Your task to perform on an android device: open a new tab in the chrome app Image 0: 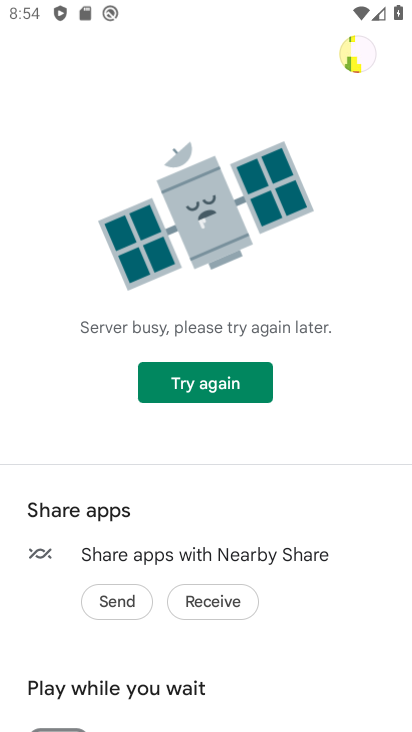
Step 0: press home button
Your task to perform on an android device: open a new tab in the chrome app Image 1: 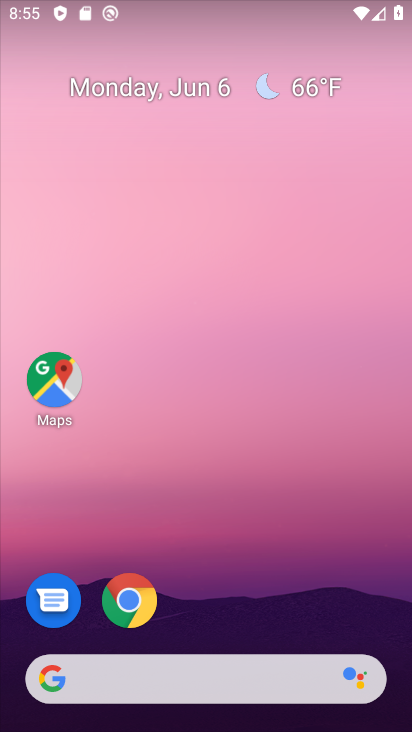
Step 1: click (127, 595)
Your task to perform on an android device: open a new tab in the chrome app Image 2: 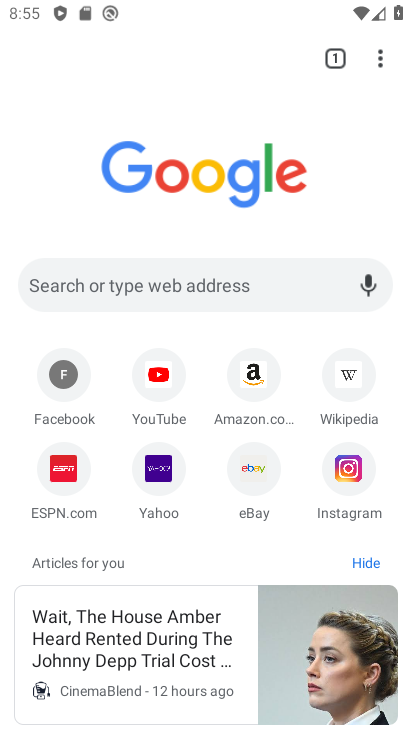
Step 2: click (332, 59)
Your task to perform on an android device: open a new tab in the chrome app Image 3: 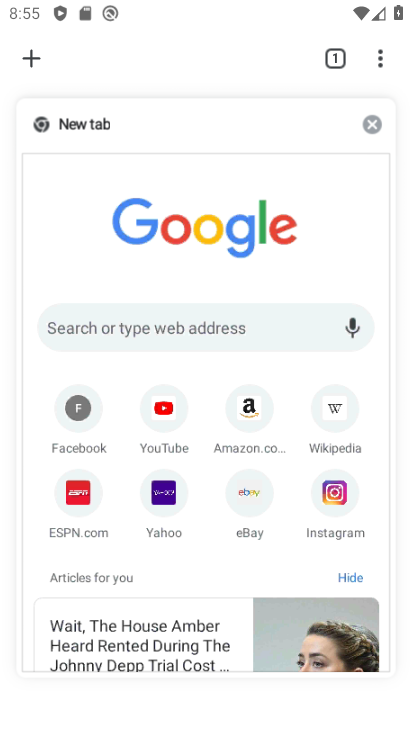
Step 3: click (26, 63)
Your task to perform on an android device: open a new tab in the chrome app Image 4: 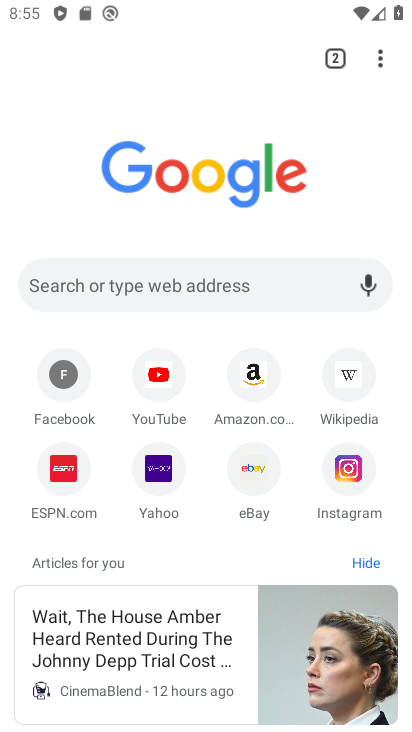
Step 4: task complete